Your task to perform on an android device: move an email to a new category in the gmail app Image 0: 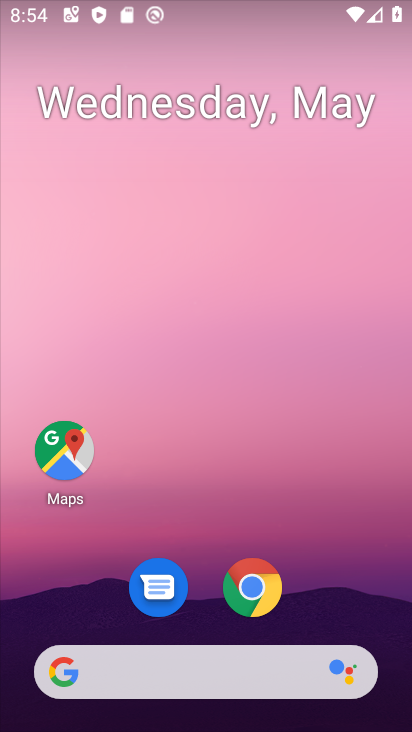
Step 0: drag from (228, 726) to (231, 124)
Your task to perform on an android device: move an email to a new category in the gmail app Image 1: 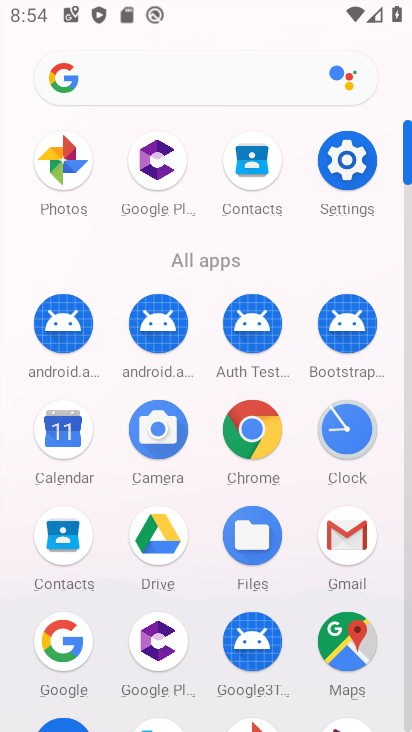
Step 1: click (347, 539)
Your task to perform on an android device: move an email to a new category in the gmail app Image 2: 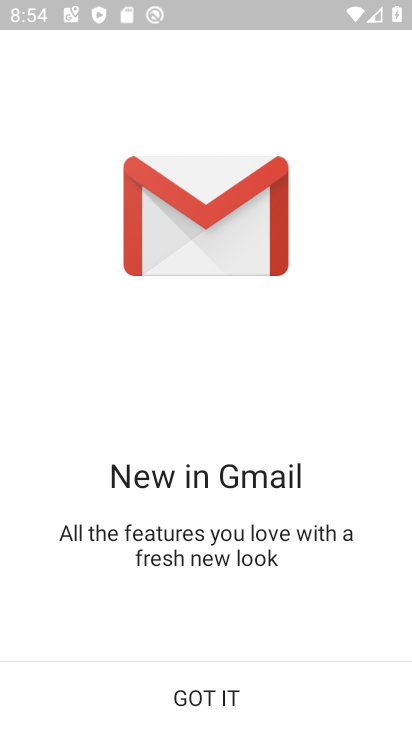
Step 2: click (199, 696)
Your task to perform on an android device: move an email to a new category in the gmail app Image 3: 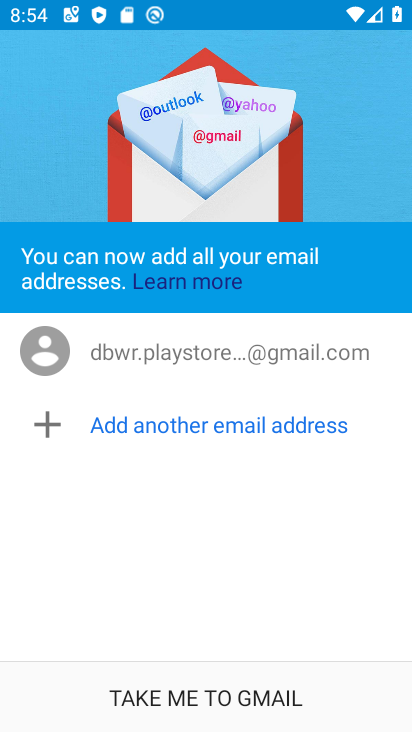
Step 3: click (199, 696)
Your task to perform on an android device: move an email to a new category in the gmail app Image 4: 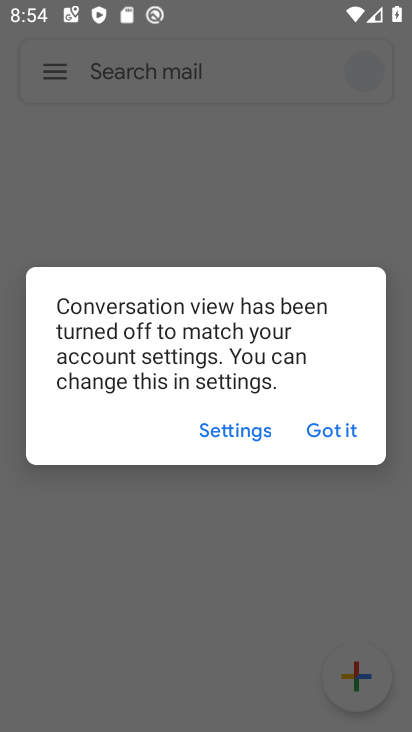
Step 4: click (330, 428)
Your task to perform on an android device: move an email to a new category in the gmail app Image 5: 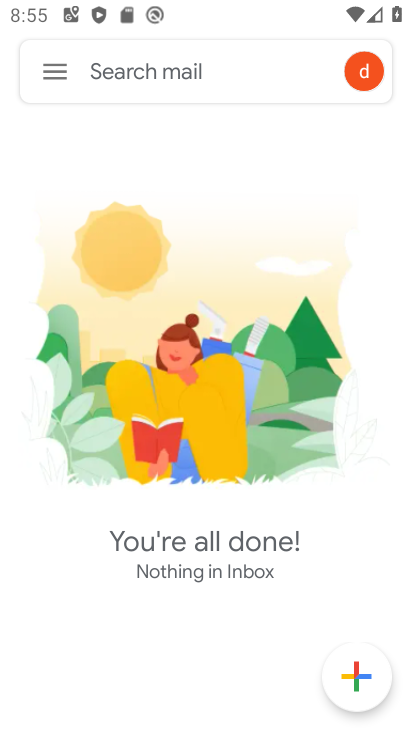
Step 5: task complete